Your task to perform on an android device: Go to wifi settings Image 0: 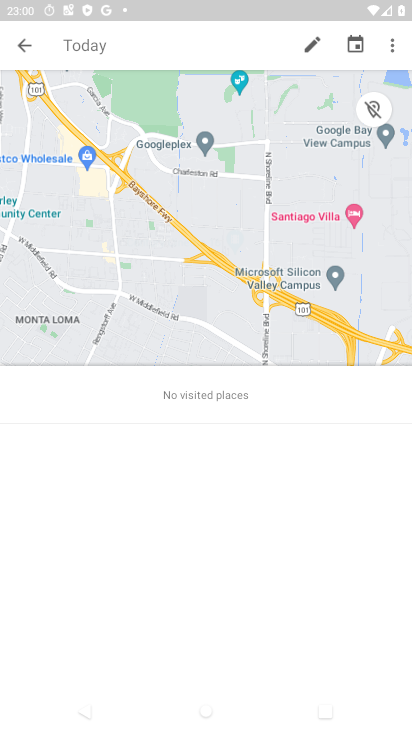
Step 0: press home button
Your task to perform on an android device: Go to wifi settings Image 1: 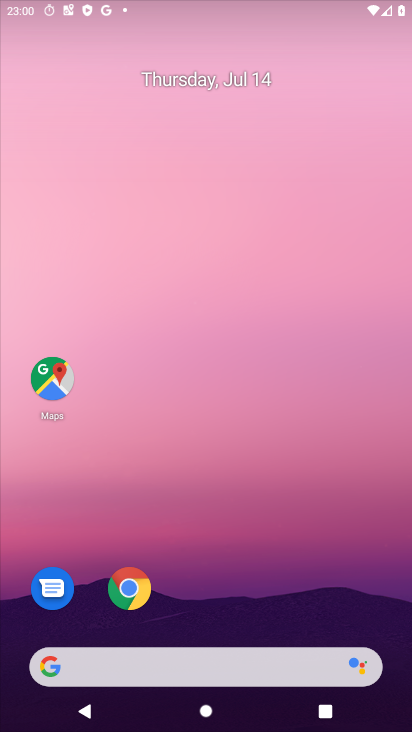
Step 1: drag from (242, 613) to (245, 138)
Your task to perform on an android device: Go to wifi settings Image 2: 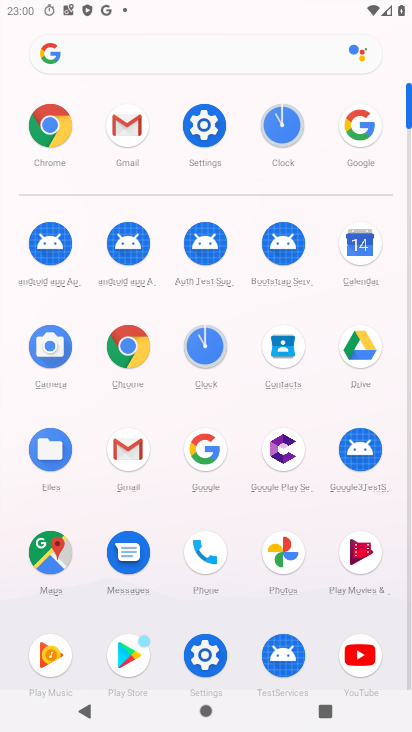
Step 2: click (205, 121)
Your task to perform on an android device: Go to wifi settings Image 3: 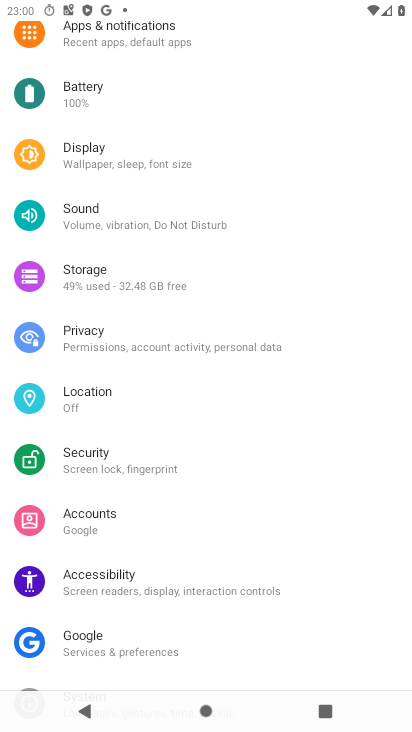
Step 3: drag from (178, 77) to (248, 666)
Your task to perform on an android device: Go to wifi settings Image 4: 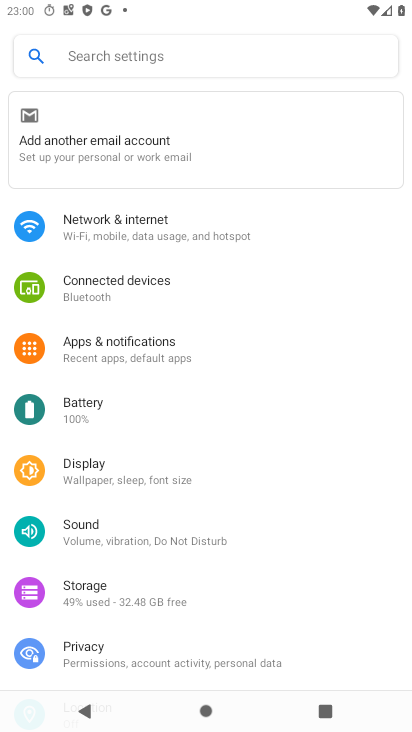
Step 4: click (145, 218)
Your task to perform on an android device: Go to wifi settings Image 5: 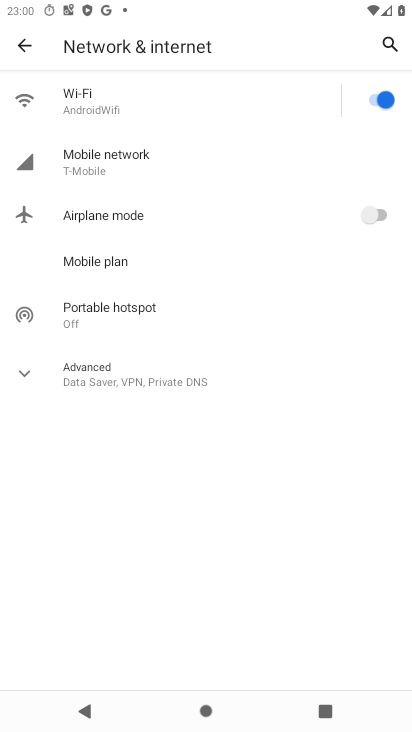
Step 5: click (170, 95)
Your task to perform on an android device: Go to wifi settings Image 6: 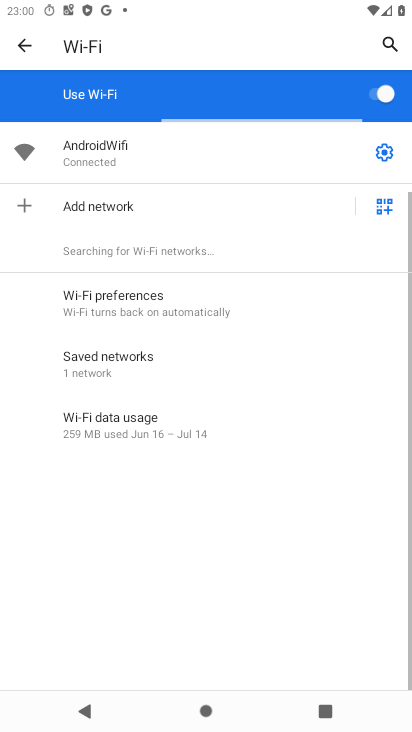
Step 6: click (176, 150)
Your task to perform on an android device: Go to wifi settings Image 7: 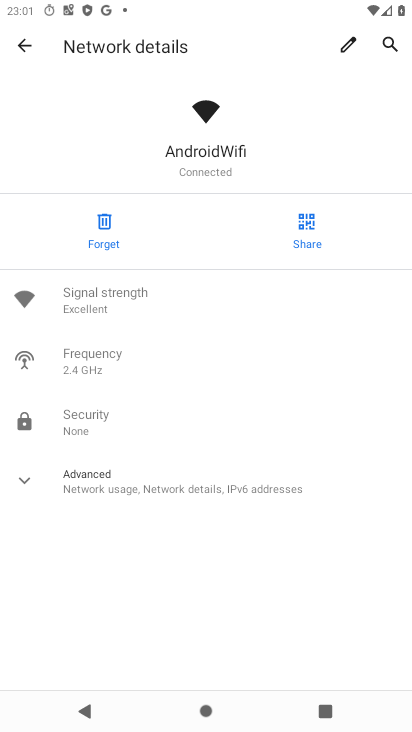
Step 7: task complete